Your task to perform on an android device: toggle priority inbox in the gmail app Image 0: 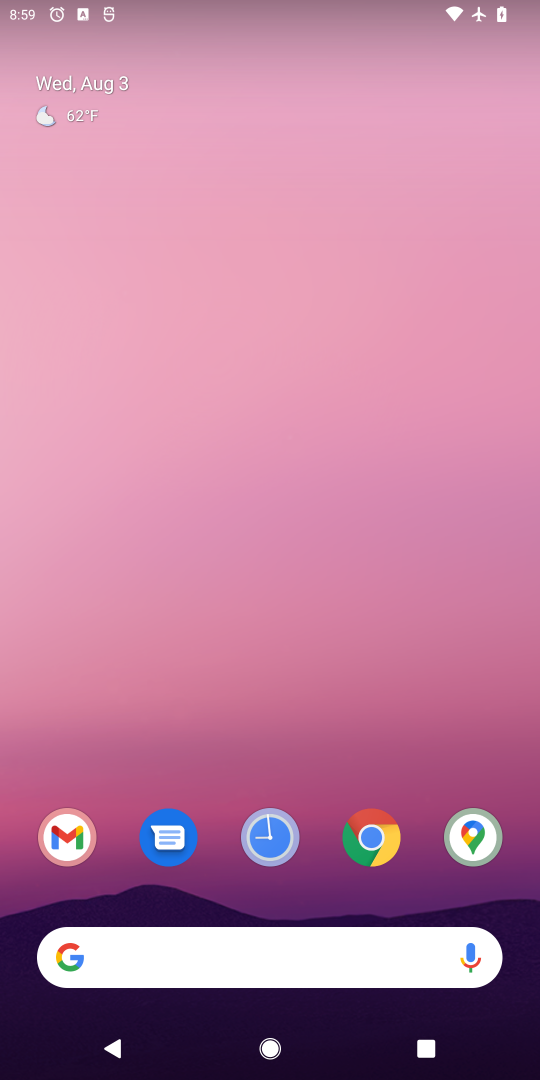
Step 0: press home button
Your task to perform on an android device: toggle priority inbox in the gmail app Image 1: 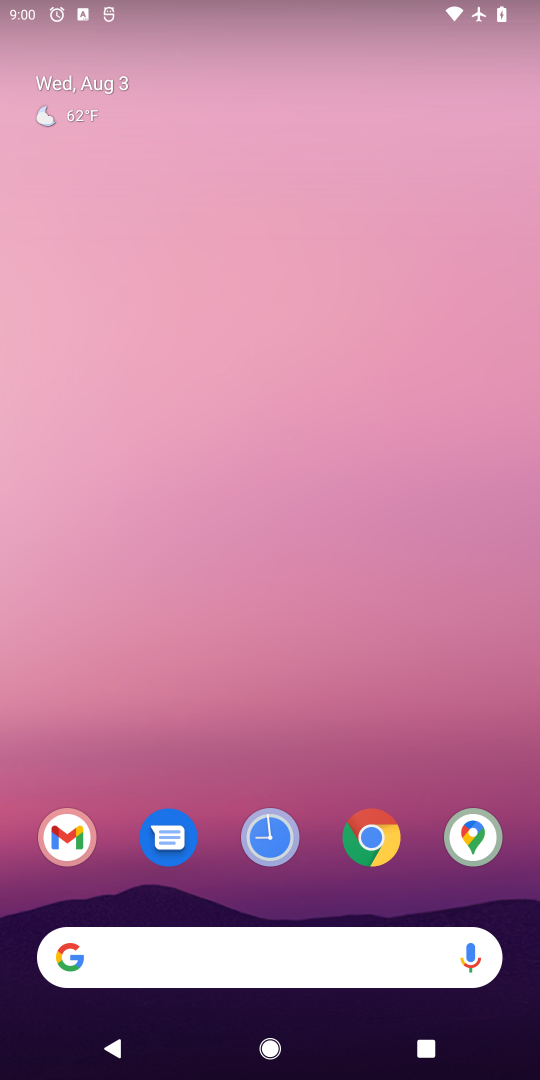
Step 1: click (49, 833)
Your task to perform on an android device: toggle priority inbox in the gmail app Image 2: 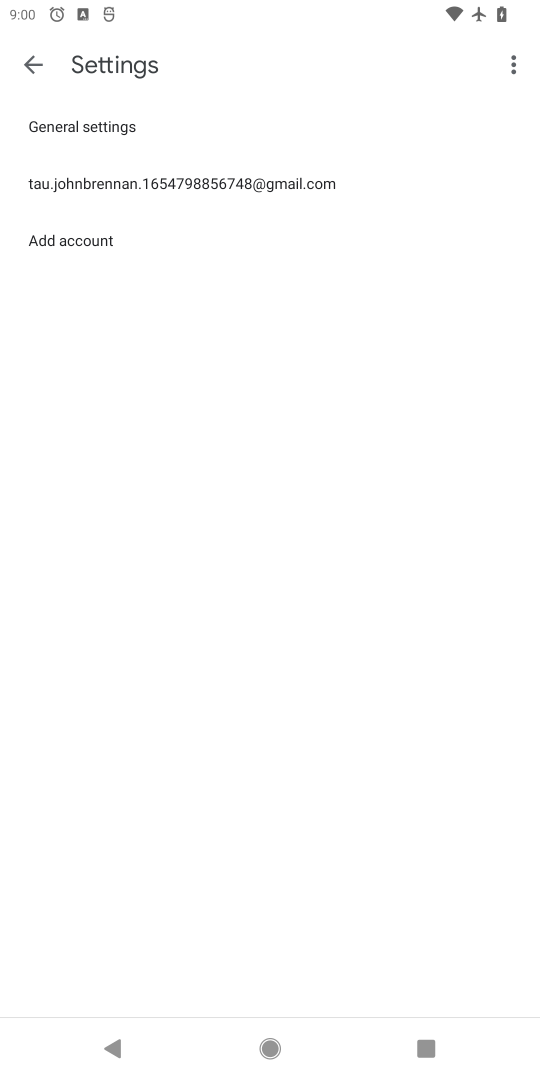
Step 2: click (25, 67)
Your task to perform on an android device: toggle priority inbox in the gmail app Image 3: 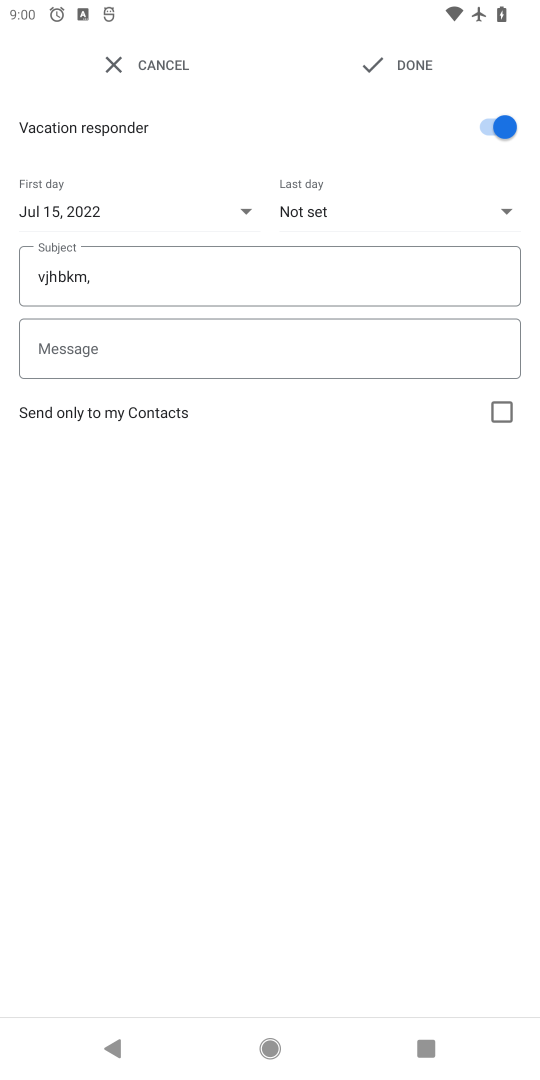
Step 3: click (110, 1052)
Your task to perform on an android device: toggle priority inbox in the gmail app Image 4: 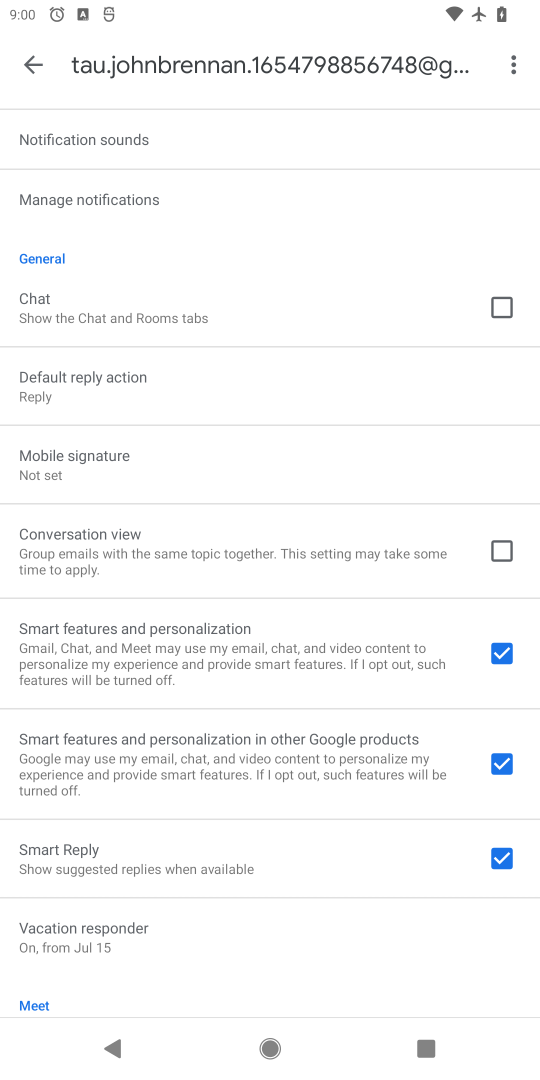
Step 4: drag from (257, 286) to (281, 950)
Your task to perform on an android device: toggle priority inbox in the gmail app Image 5: 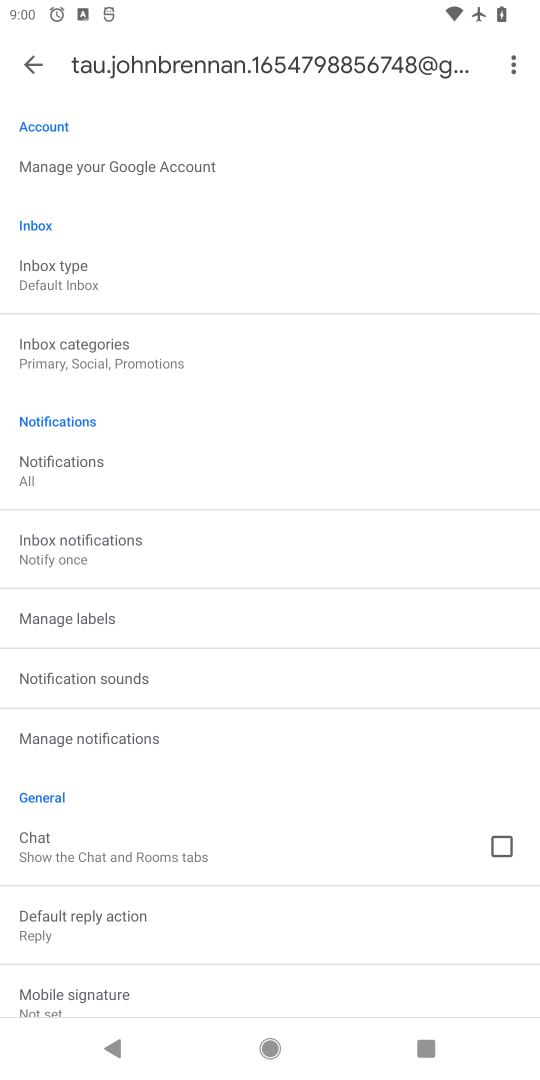
Step 5: click (36, 268)
Your task to perform on an android device: toggle priority inbox in the gmail app Image 6: 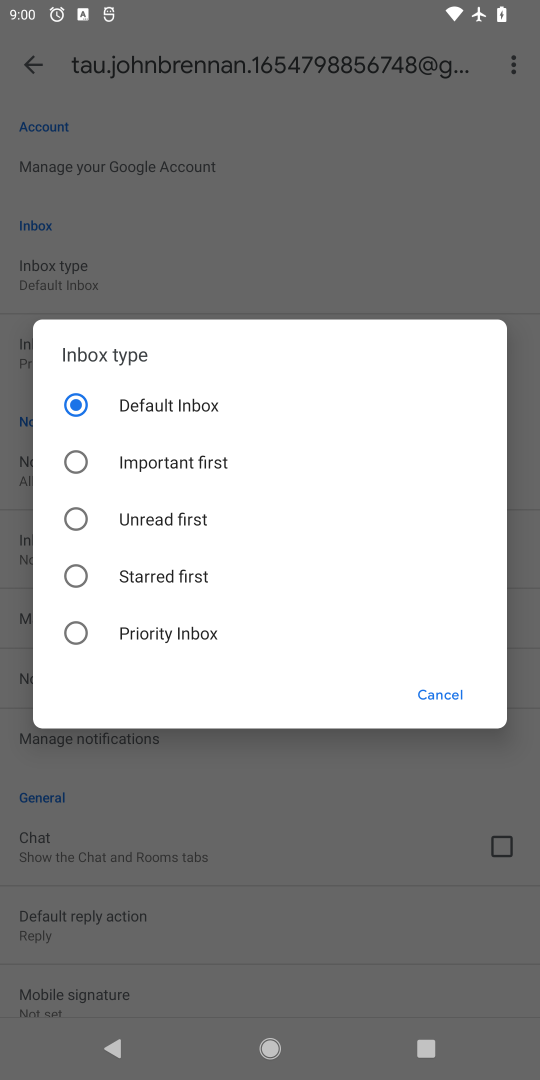
Step 6: task complete